Your task to perform on an android device: open app "Spotify" Image 0: 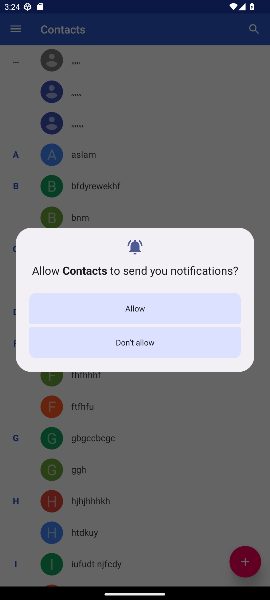
Step 0: press home button
Your task to perform on an android device: open app "Spotify" Image 1: 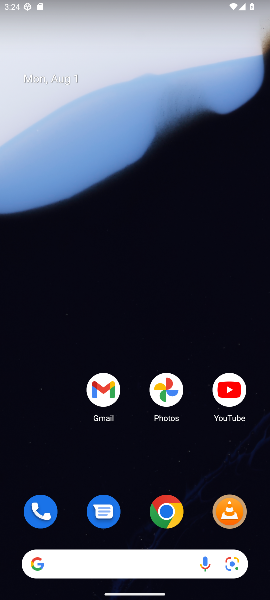
Step 1: drag from (127, 496) to (126, 143)
Your task to perform on an android device: open app "Spotify" Image 2: 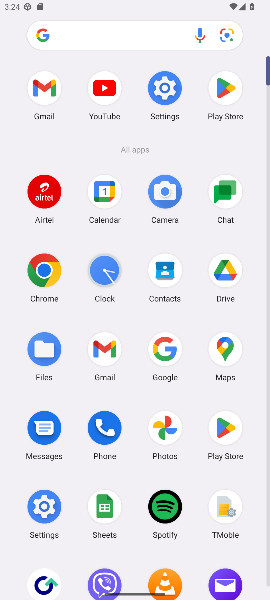
Step 2: click (214, 106)
Your task to perform on an android device: open app "Spotify" Image 3: 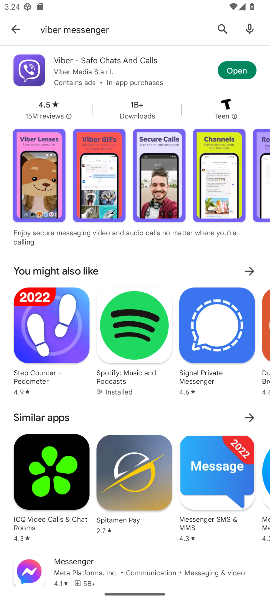
Step 3: click (7, 32)
Your task to perform on an android device: open app "Spotify" Image 4: 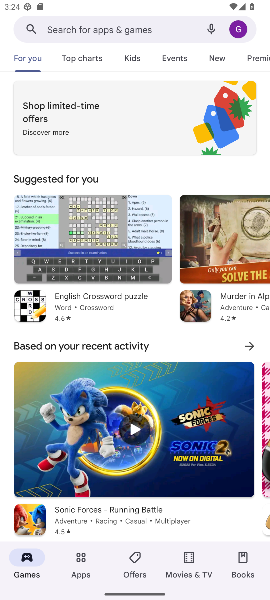
Step 4: click (114, 26)
Your task to perform on an android device: open app "Spotify" Image 5: 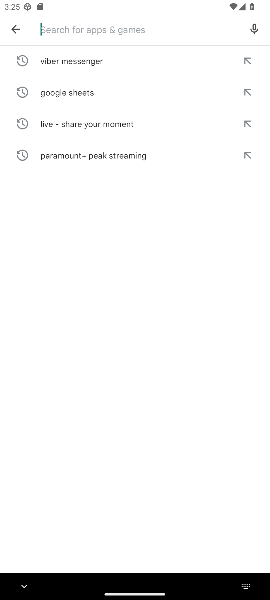
Step 5: type "Spotify"
Your task to perform on an android device: open app "Spotify" Image 6: 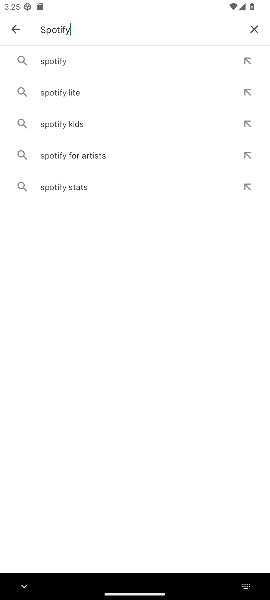
Step 6: click (52, 65)
Your task to perform on an android device: open app "Spotify" Image 7: 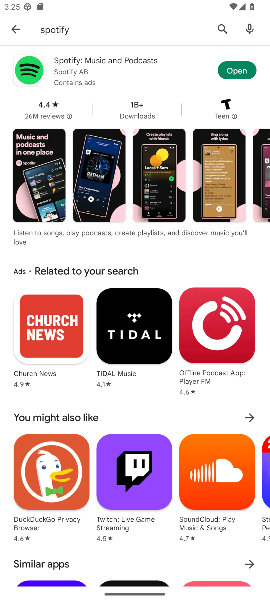
Step 7: click (232, 67)
Your task to perform on an android device: open app "Spotify" Image 8: 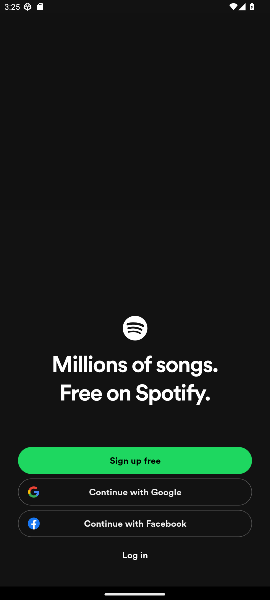
Step 8: task complete